Your task to perform on an android device: Turn on the flashlight Image 0: 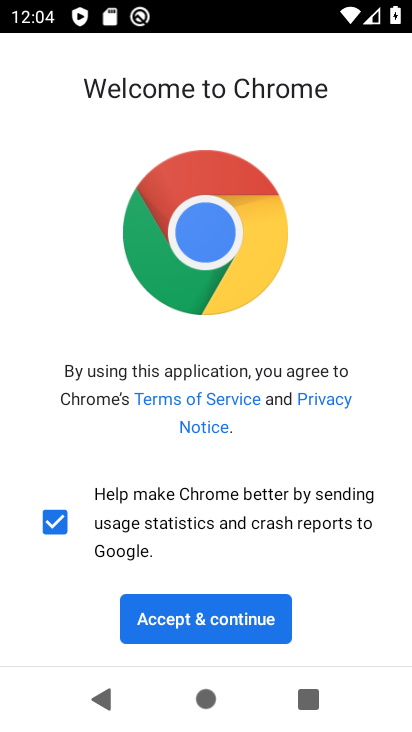
Step 0: press home button
Your task to perform on an android device: Turn on the flashlight Image 1: 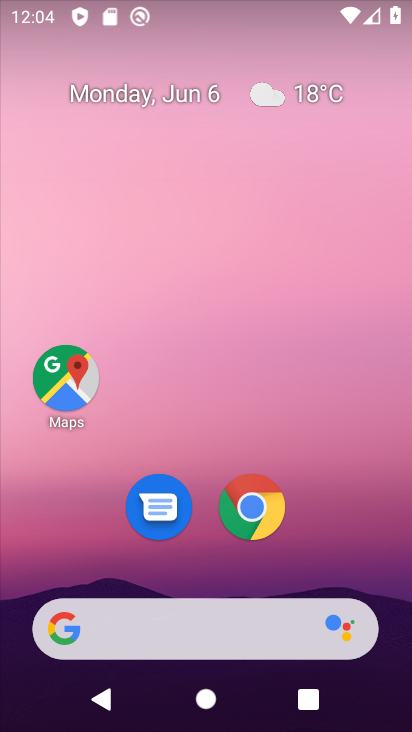
Step 1: drag from (221, 513) to (234, 188)
Your task to perform on an android device: Turn on the flashlight Image 2: 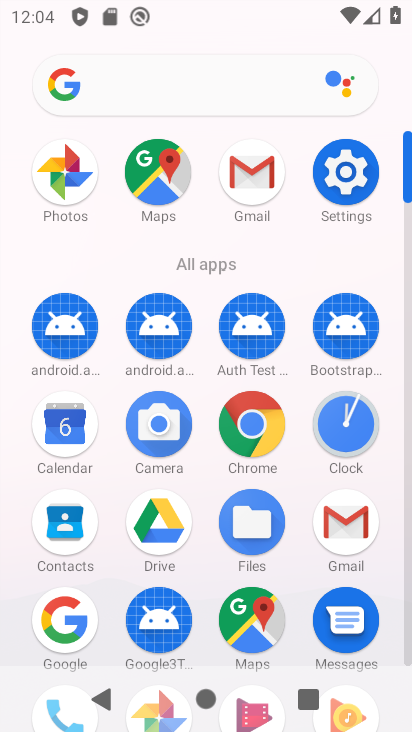
Step 2: click (344, 170)
Your task to perform on an android device: Turn on the flashlight Image 3: 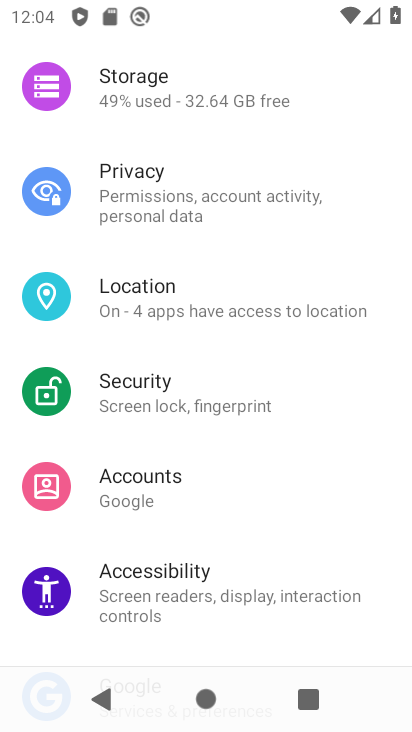
Step 3: drag from (246, 162) to (229, 586)
Your task to perform on an android device: Turn on the flashlight Image 4: 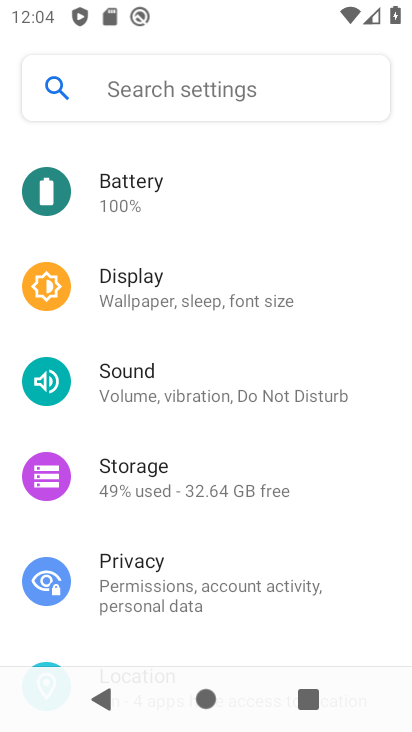
Step 4: click (195, 290)
Your task to perform on an android device: Turn on the flashlight Image 5: 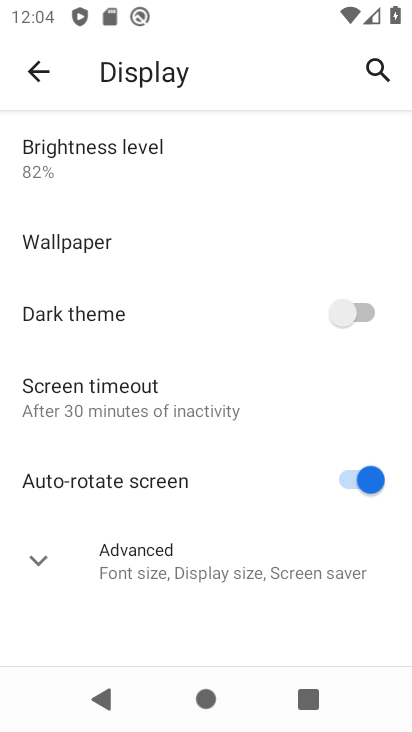
Step 5: task complete